Your task to perform on an android device: add a label to a message in the gmail app Image 0: 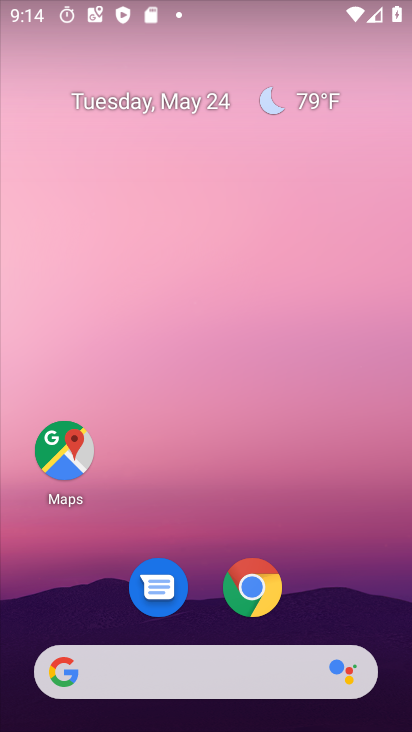
Step 0: drag from (322, 603) to (200, 283)
Your task to perform on an android device: add a label to a message in the gmail app Image 1: 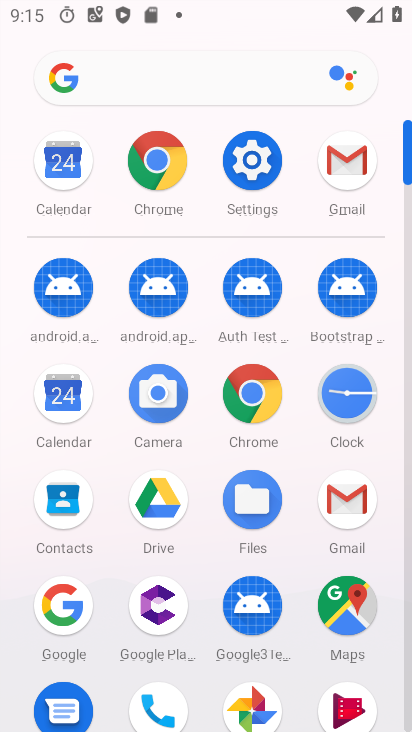
Step 1: click (349, 161)
Your task to perform on an android device: add a label to a message in the gmail app Image 2: 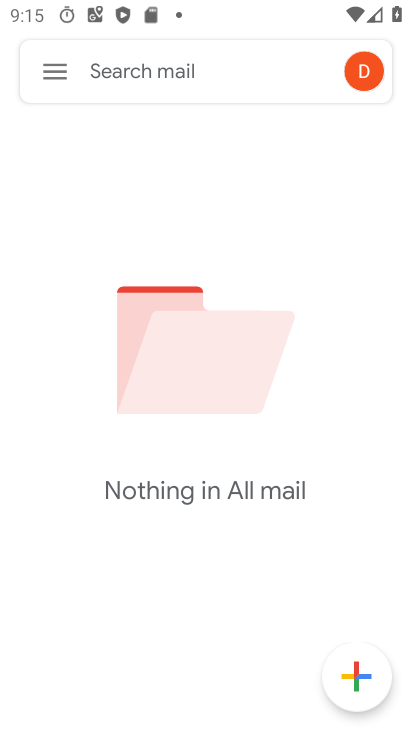
Step 2: click (59, 76)
Your task to perform on an android device: add a label to a message in the gmail app Image 3: 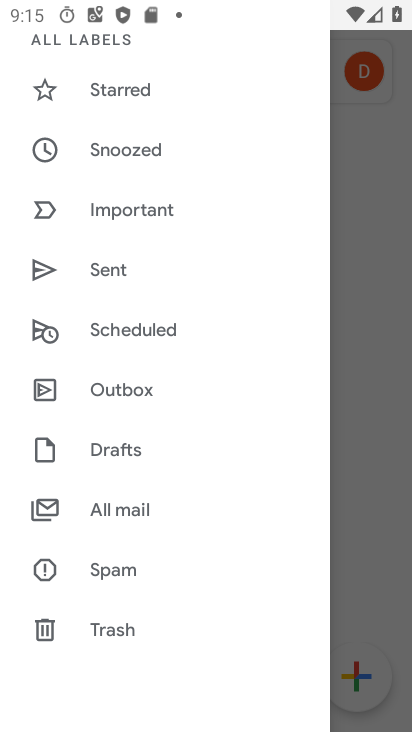
Step 3: drag from (131, 135) to (144, 265)
Your task to perform on an android device: add a label to a message in the gmail app Image 4: 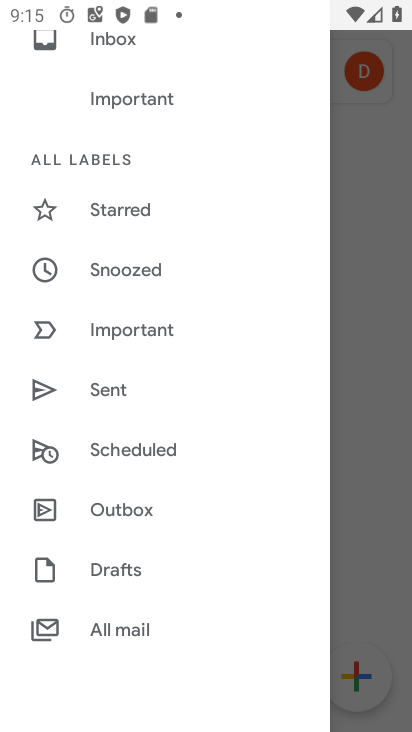
Step 4: click (103, 50)
Your task to perform on an android device: add a label to a message in the gmail app Image 5: 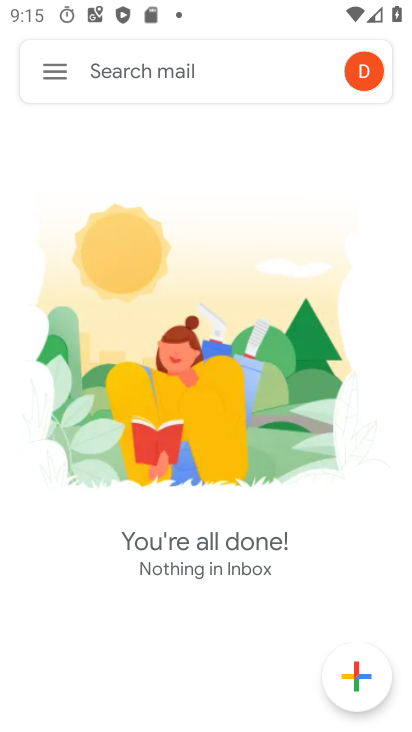
Step 5: click (45, 79)
Your task to perform on an android device: add a label to a message in the gmail app Image 6: 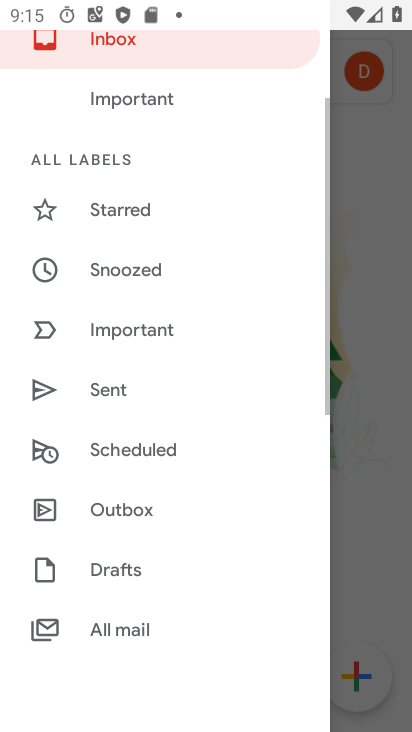
Step 6: click (161, 109)
Your task to perform on an android device: add a label to a message in the gmail app Image 7: 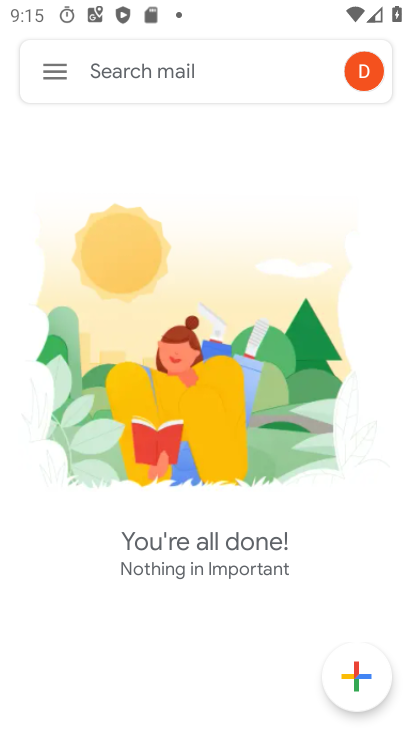
Step 7: click (55, 76)
Your task to perform on an android device: add a label to a message in the gmail app Image 8: 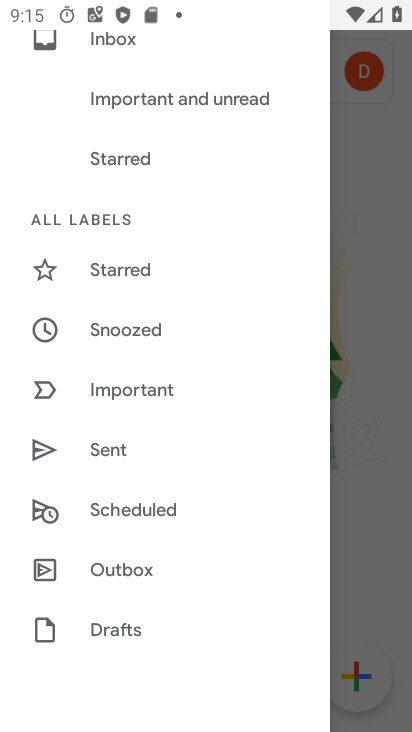
Step 8: drag from (115, 372) to (157, 311)
Your task to perform on an android device: add a label to a message in the gmail app Image 9: 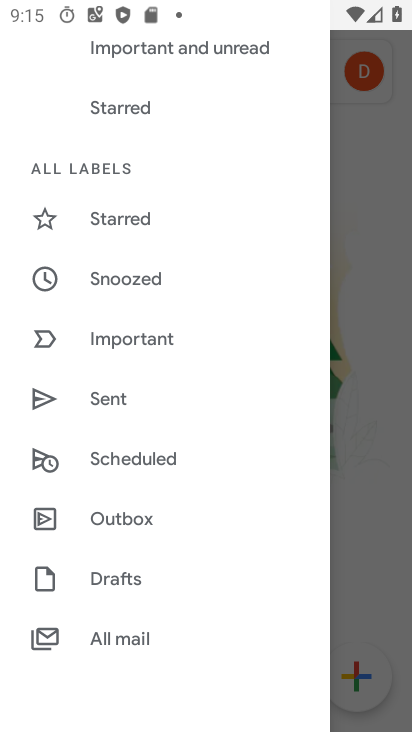
Step 9: drag from (141, 392) to (154, 323)
Your task to perform on an android device: add a label to a message in the gmail app Image 10: 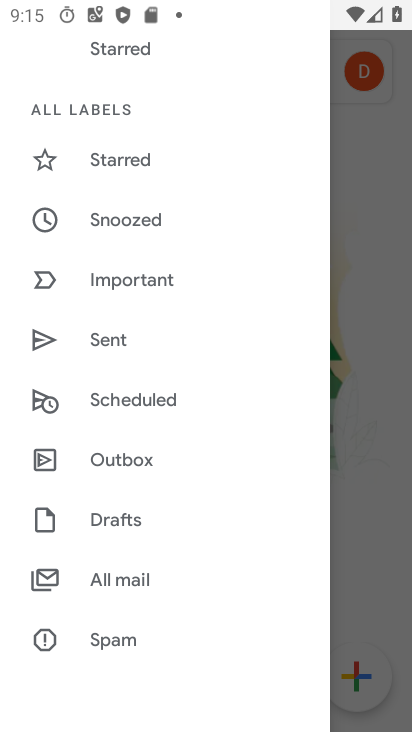
Step 10: click (151, 211)
Your task to perform on an android device: add a label to a message in the gmail app Image 11: 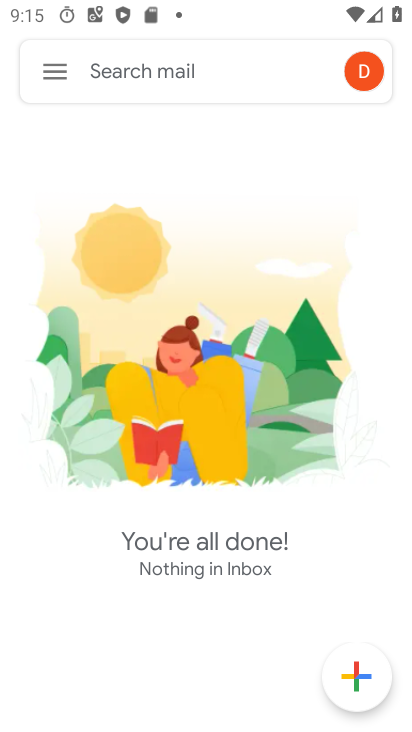
Step 11: click (54, 71)
Your task to perform on an android device: add a label to a message in the gmail app Image 12: 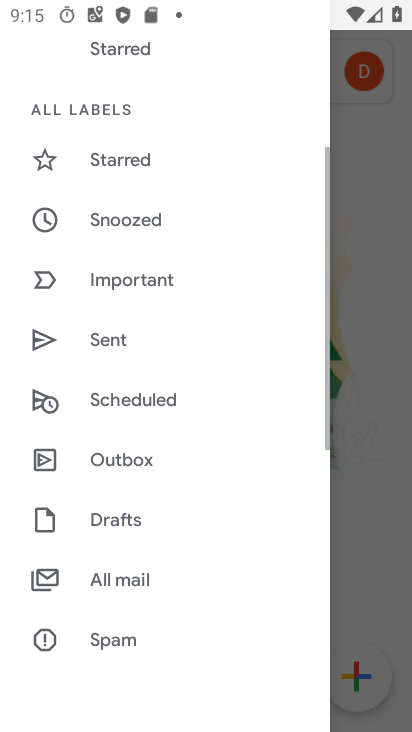
Step 12: drag from (128, 426) to (143, 361)
Your task to perform on an android device: add a label to a message in the gmail app Image 13: 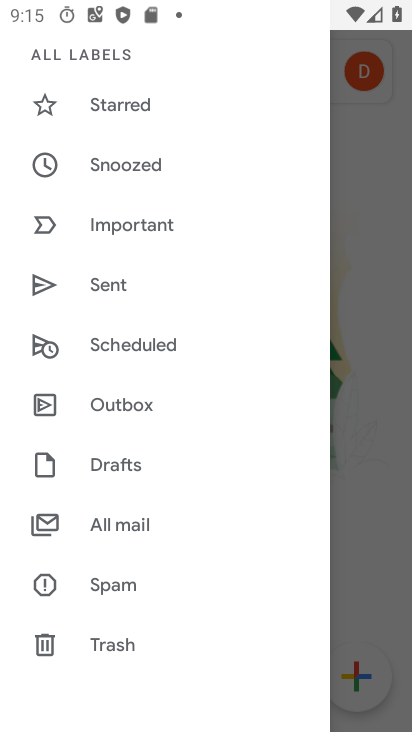
Step 13: drag from (146, 433) to (150, 375)
Your task to perform on an android device: add a label to a message in the gmail app Image 14: 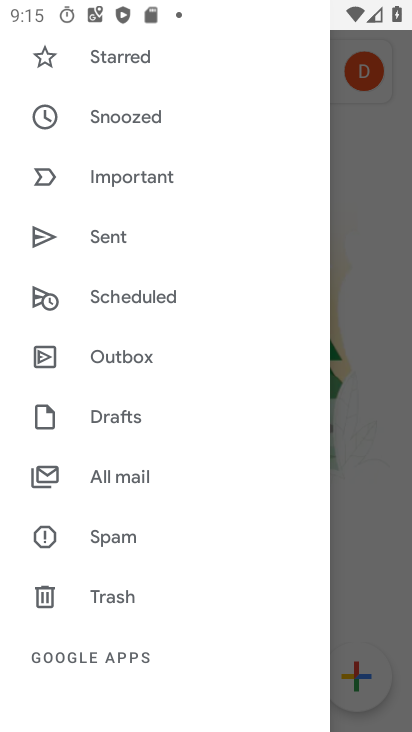
Step 14: click (138, 455)
Your task to perform on an android device: add a label to a message in the gmail app Image 15: 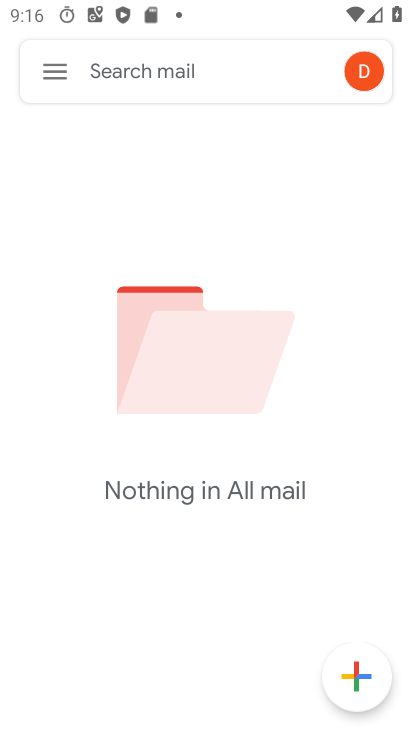
Step 15: task complete